Your task to perform on an android device: Check the news Image 0: 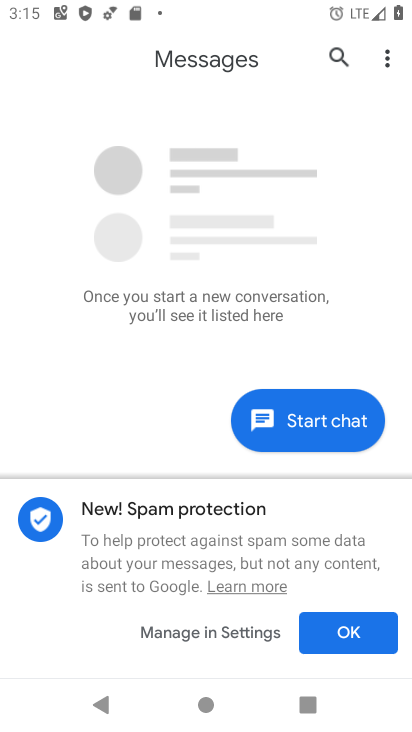
Step 0: press home button
Your task to perform on an android device: Check the news Image 1: 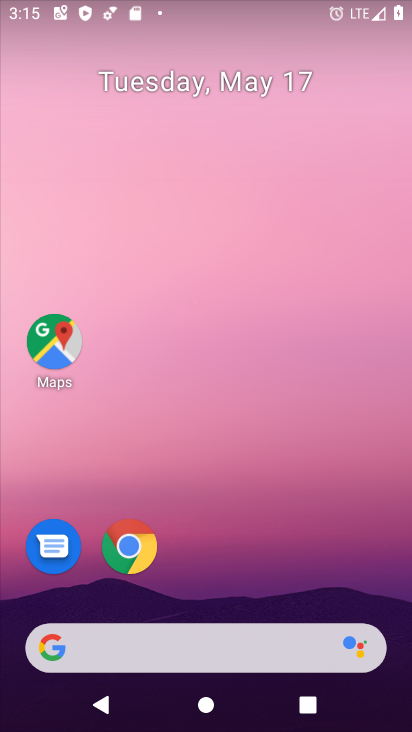
Step 1: click (138, 571)
Your task to perform on an android device: Check the news Image 2: 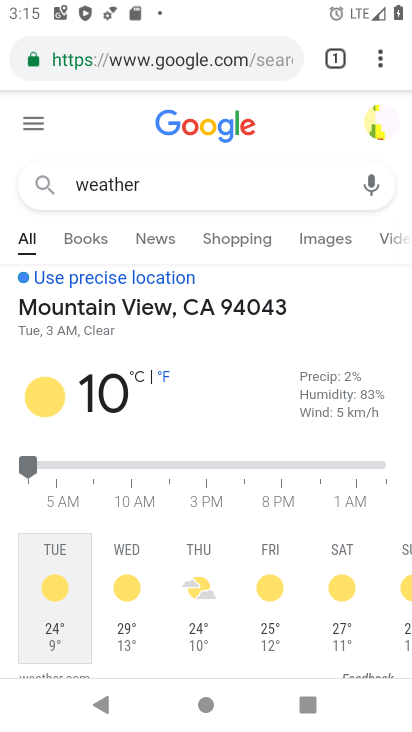
Step 2: click (209, 64)
Your task to perform on an android device: Check the news Image 3: 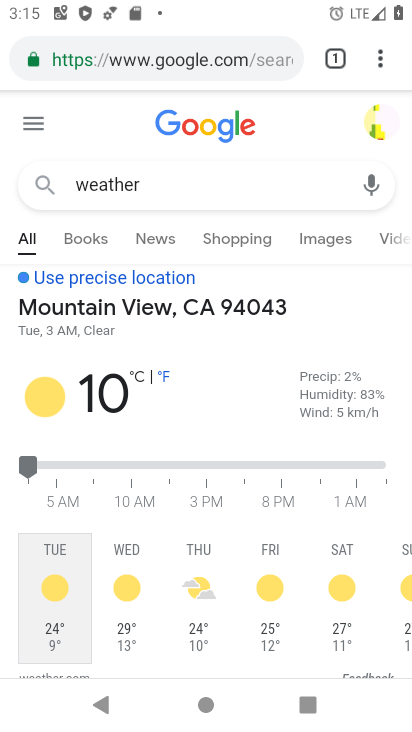
Step 3: click (209, 64)
Your task to perform on an android device: Check the news Image 4: 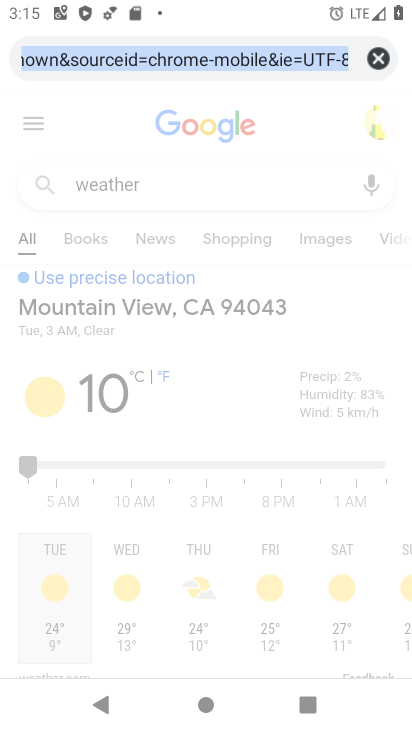
Step 4: click (209, 64)
Your task to perform on an android device: Check the news Image 5: 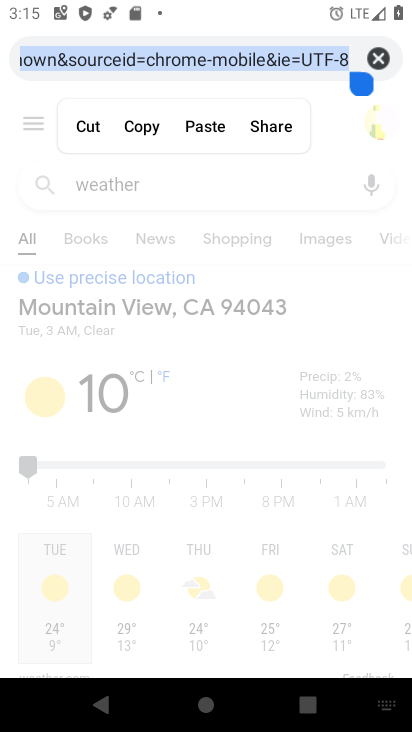
Step 5: click (376, 61)
Your task to perform on an android device: Check the news Image 6: 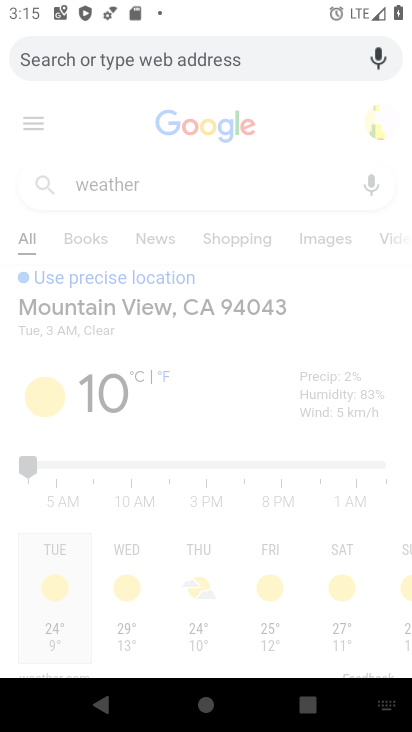
Step 6: type " news"
Your task to perform on an android device: Check the news Image 7: 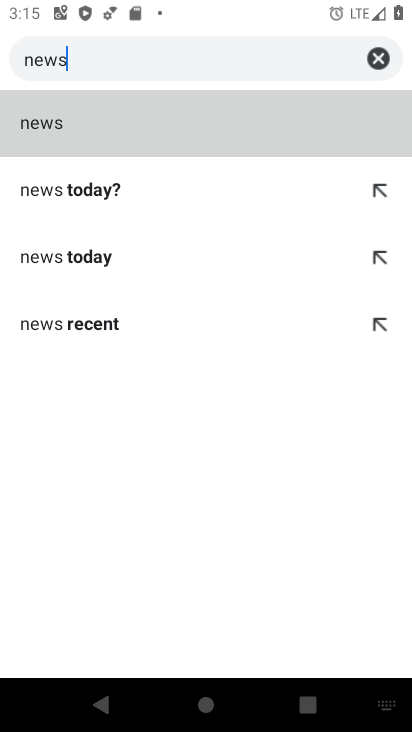
Step 7: click (190, 129)
Your task to perform on an android device: Check the news Image 8: 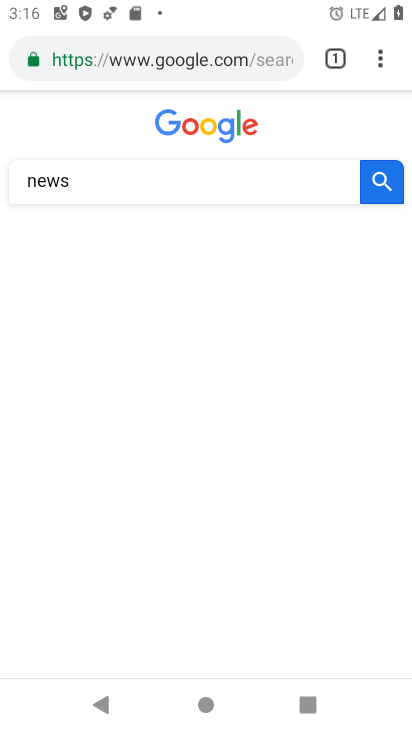
Step 8: task complete